Your task to perform on an android device: delete a single message in the gmail app Image 0: 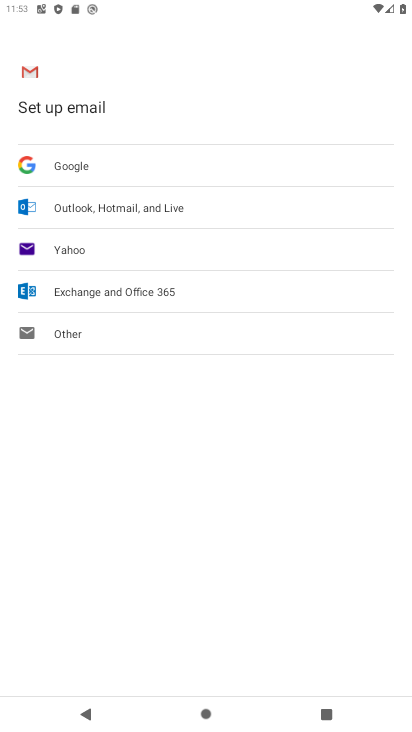
Step 0: press home button
Your task to perform on an android device: delete a single message in the gmail app Image 1: 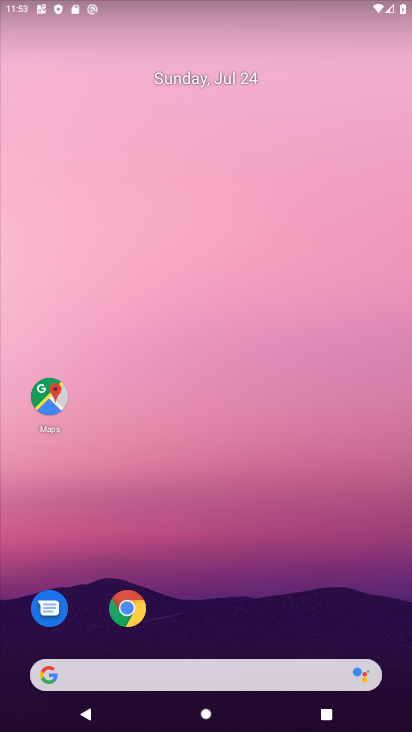
Step 1: drag from (264, 645) to (262, 10)
Your task to perform on an android device: delete a single message in the gmail app Image 2: 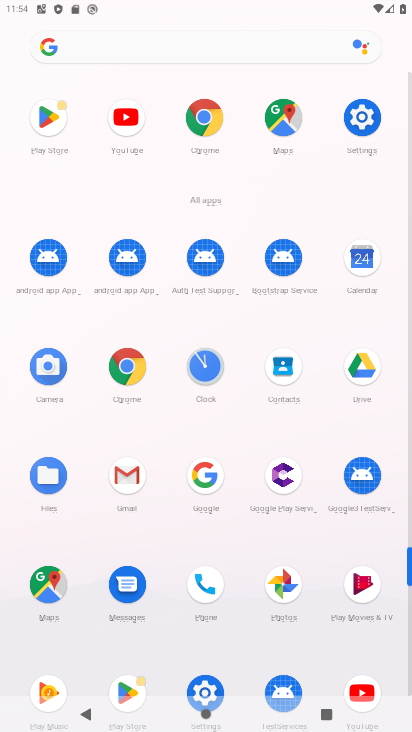
Step 2: click (125, 489)
Your task to perform on an android device: delete a single message in the gmail app Image 3: 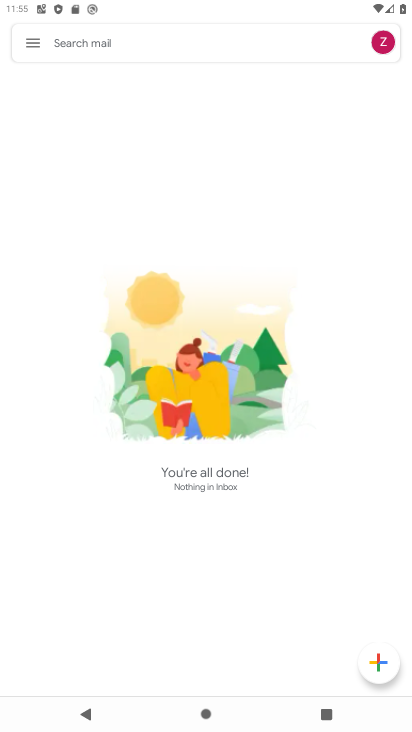
Step 3: click (29, 39)
Your task to perform on an android device: delete a single message in the gmail app Image 4: 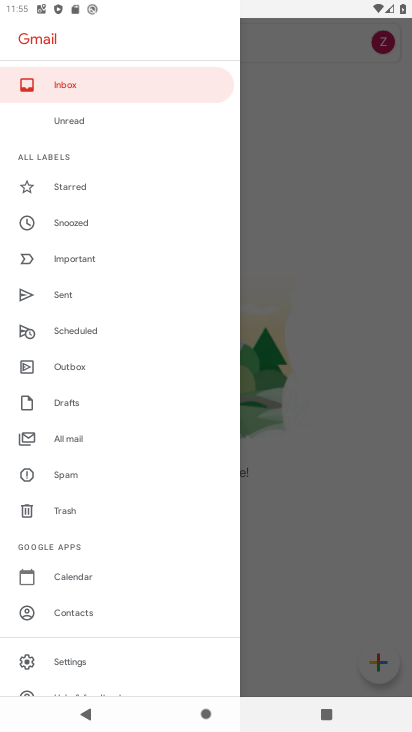
Step 4: click (75, 441)
Your task to perform on an android device: delete a single message in the gmail app Image 5: 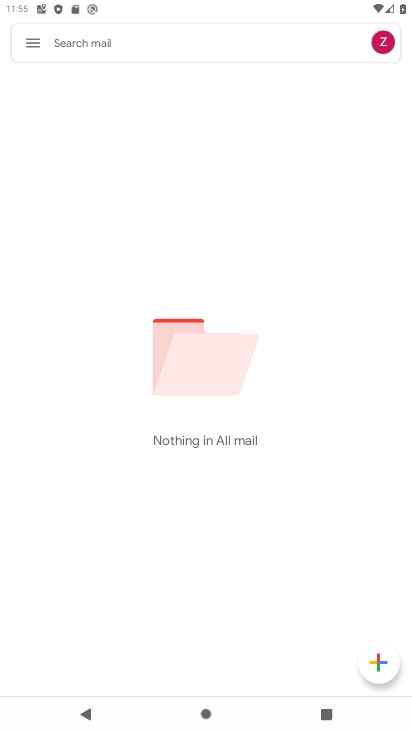
Step 5: task complete